Your task to perform on an android device: turn on the 24-hour format for clock Image 0: 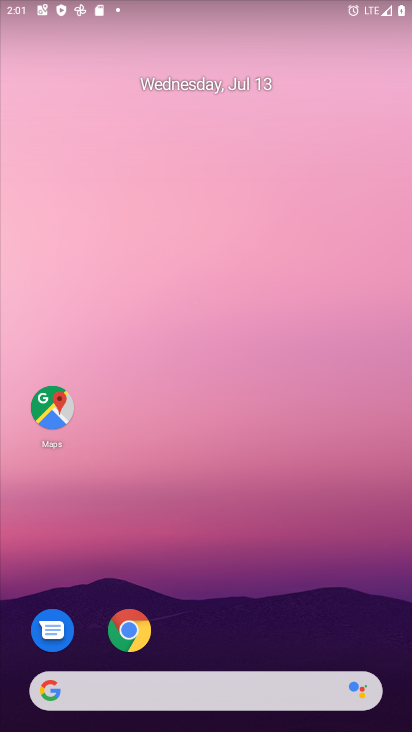
Step 0: drag from (375, 660) to (226, 35)
Your task to perform on an android device: turn on the 24-hour format for clock Image 1: 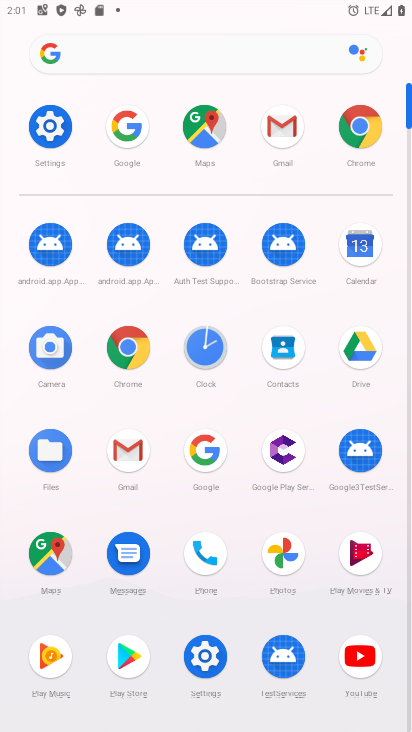
Step 1: click (202, 333)
Your task to perform on an android device: turn on the 24-hour format for clock Image 2: 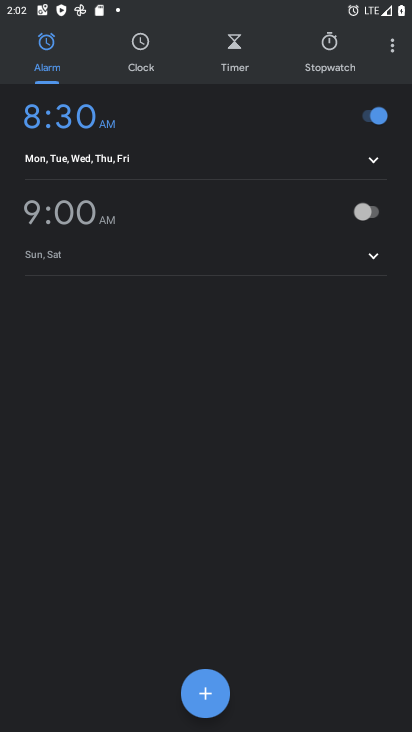
Step 2: click (397, 41)
Your task to perform on an android device: turn on the 24-hour format for clock Image 3: 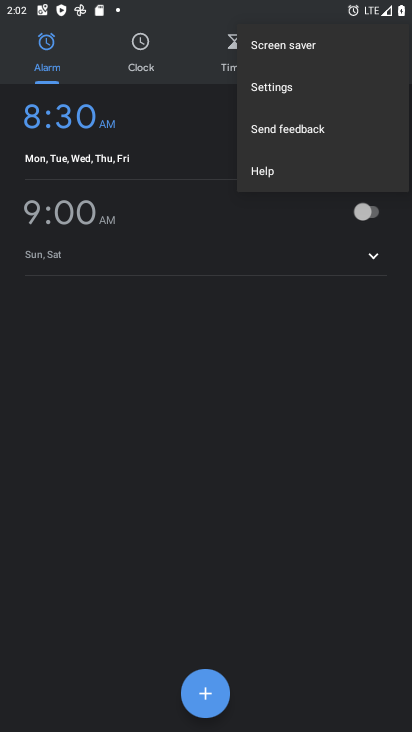
Step 3: click (272, 82)
Your task to perform on an android device: turn on the 24-hour format for clock Image 4: 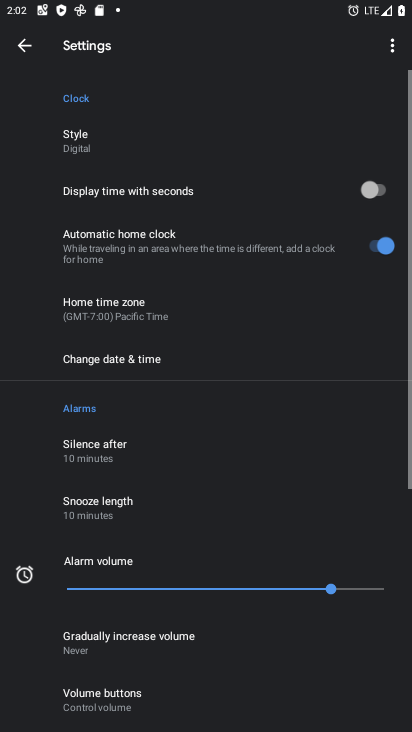
Step 4: click (159, 363)
Your task to perform on an android device: turn on the 24-hour format for clock Image 5: 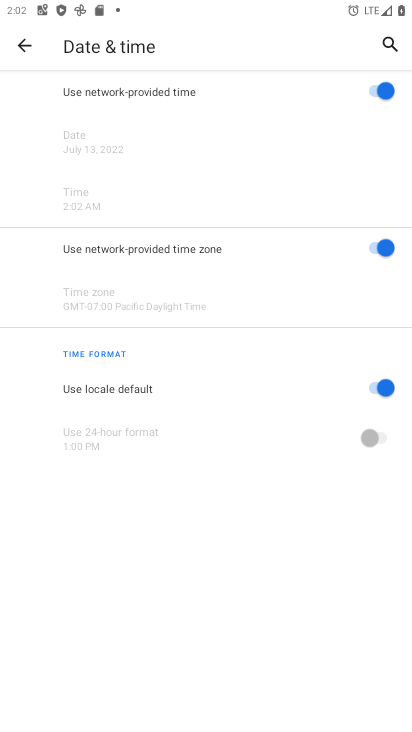
Step 5: task complete